Your task to perform on an android device: turn on wifi Image 0: 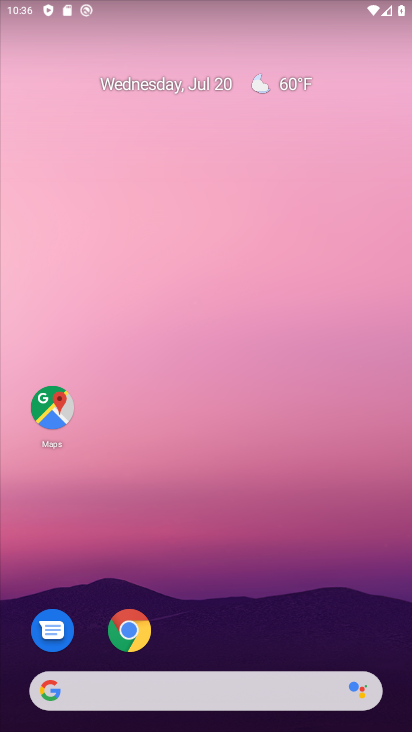
Step 0: drag from (236, 671) to (169, 35)
Your task to perform on an android device: turn on wifi Image 1: 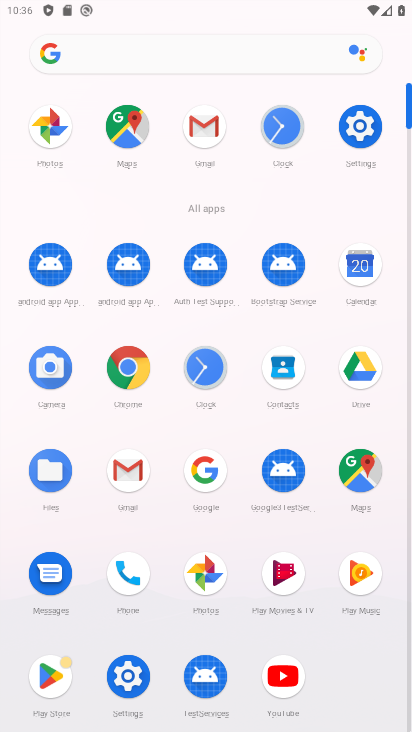
Step 1: click (362, 132)
Your task to perform on an android device: turn on wifi Image 2: 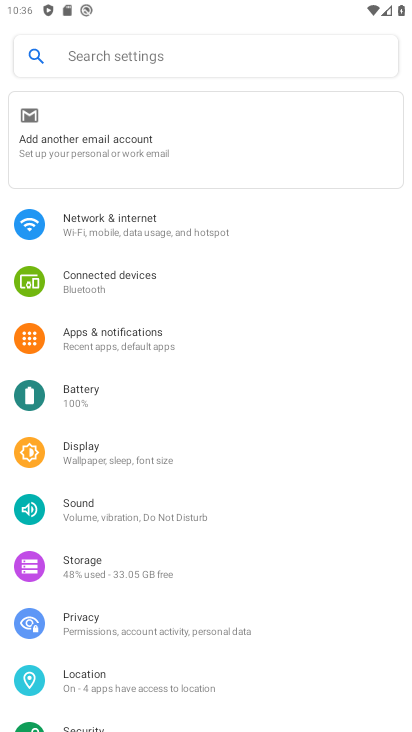
Step 2: click (112, 219)
Your task to perform on an android device: turn on wifi Image 3: 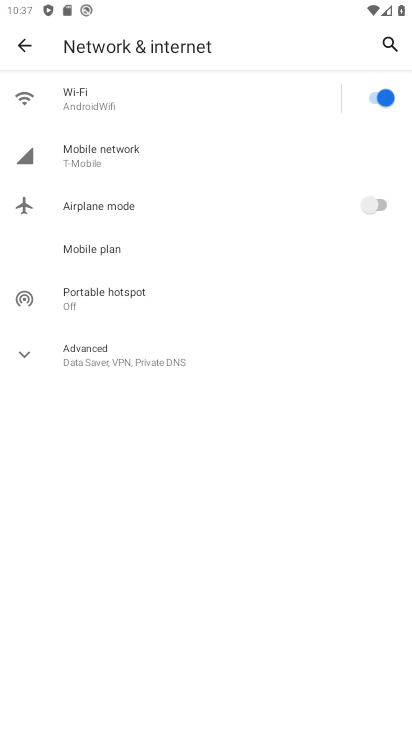
Step 3: task complete